Your task to perform on an android device: Open Google Chrome and click the shortcut for Amazon.com Image 0: 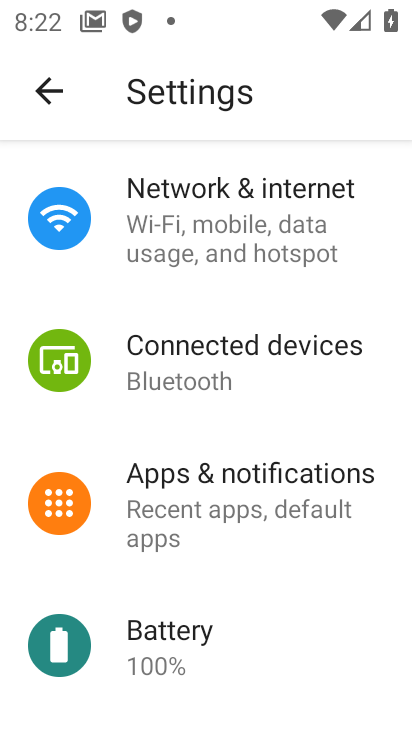
Step 0: press home button
Your task to perform on an android device: Open Google Chrome and click the shortcut for Amazon.com Image 1: 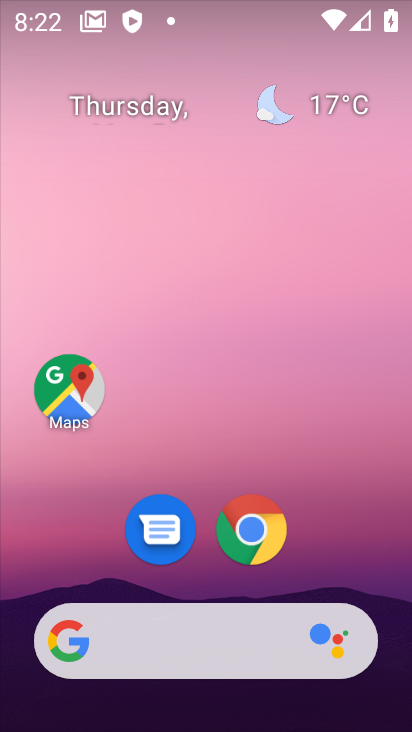
Step 1: click (265, 530)
Your task to perform on an android device: Open Google Chrome and click the shortcut for Amazon.com Image 2: 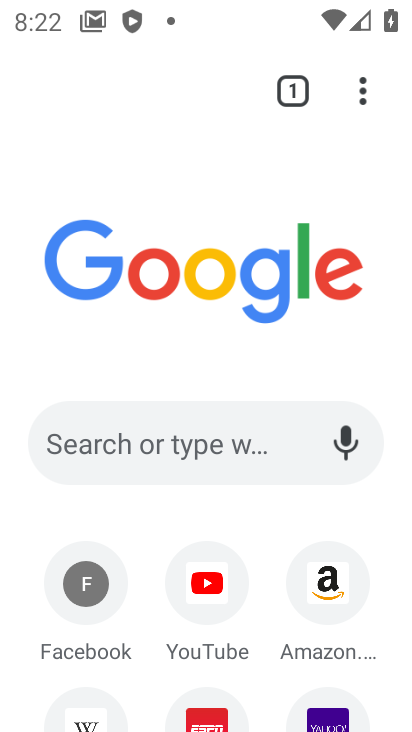
Step 2: click (325, 595)
Your task to perform on an android device: Open Google Chrome and click the shortcut for Amazon.com Image 3: 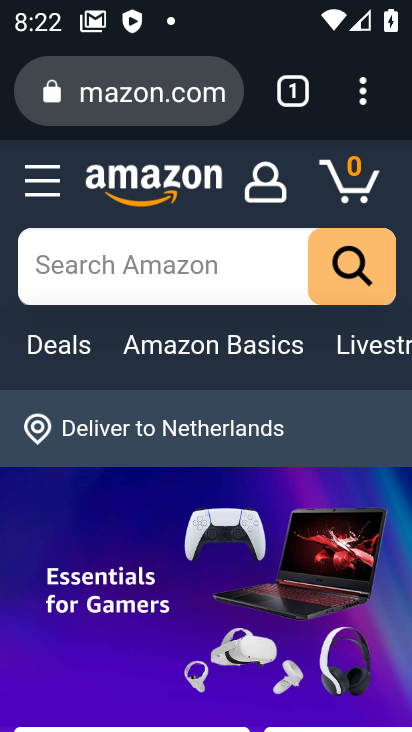
Step 3: task complete